Your task to perform on an android device: turn on priority inbox in the gmail app Image 0: 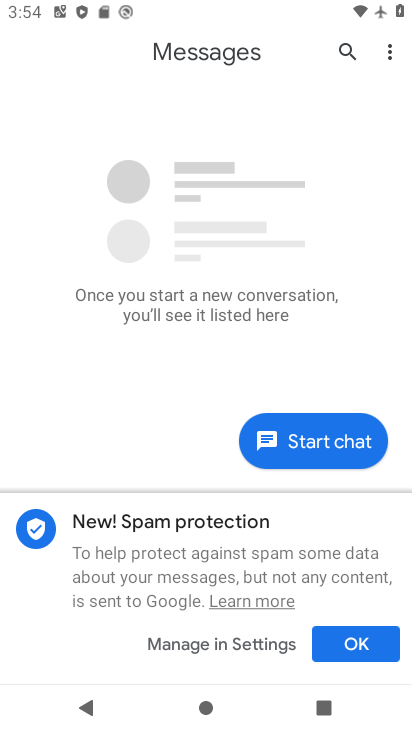
Step 0: press home button
Your task to perform on an android device: turn on priority inbox in the gmail app Image 1: 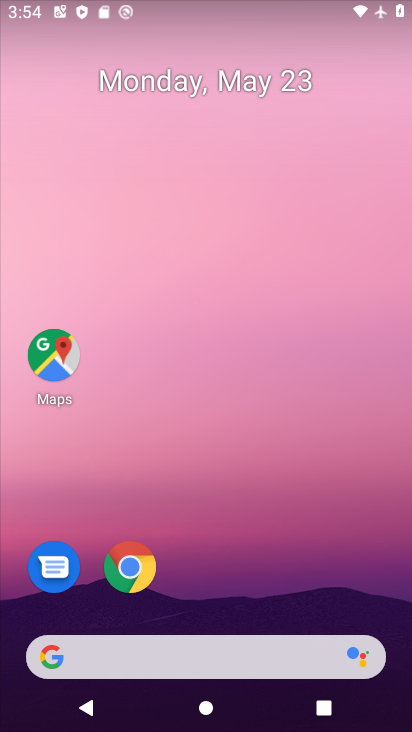
Step 1: drag from (391, 639) to (303, 152)
Your task to perform on an android device: turn on priority inbox in the gmail app Image 2: 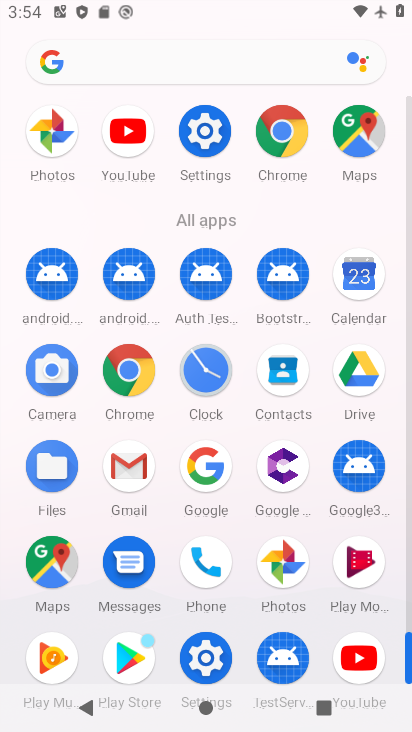
Step 2: click (120, 460)
Your task to perform on an android device: turn on priority inbox in the gmail app Image 3: 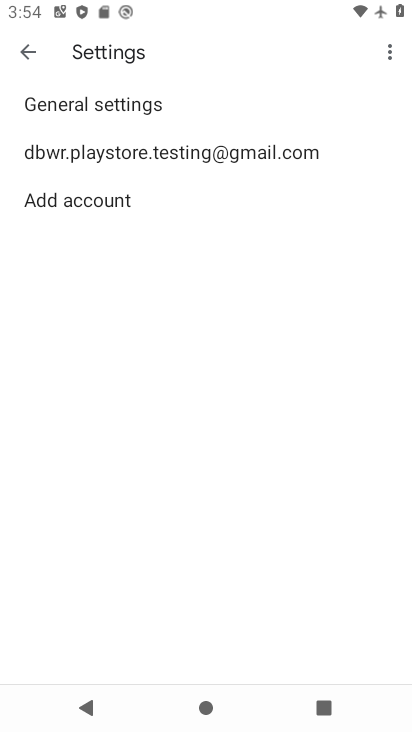
Step 3: click (157, 160)
Your task to perform on an android device: turn on priority inbox in the gmail app Image 4: 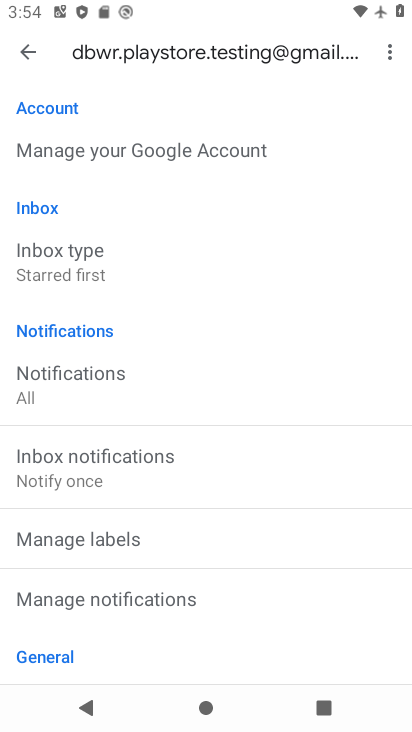
Step 4: click (67, 285)
Your task to perform on an android device: turn on priority inbox in the gmail app Image 5: 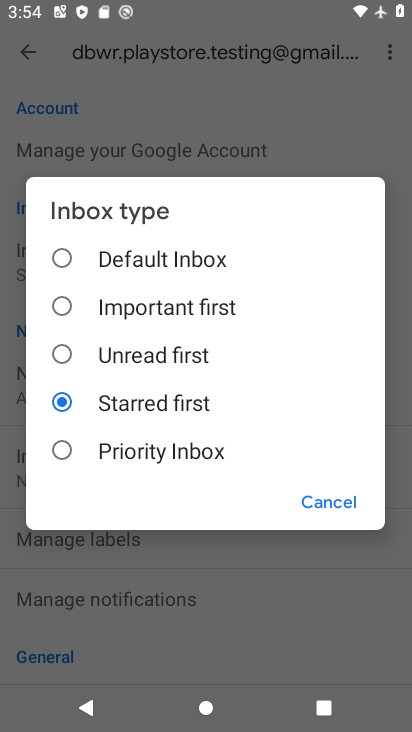
Step 5: click (61, 442)
Your task to perform on an android device: turn on priority inbox in the gmail app Image 6: 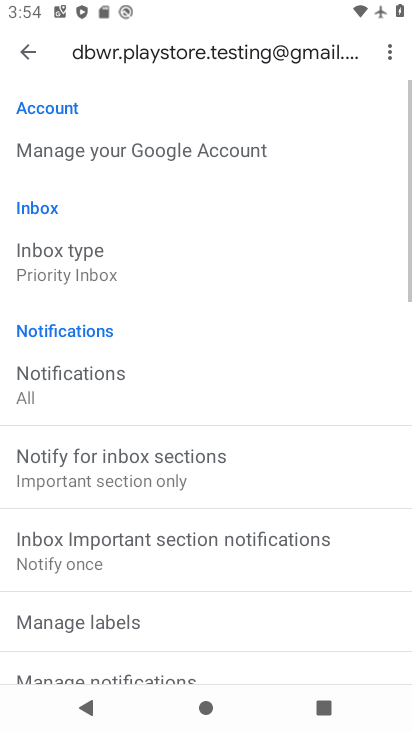
Step 6: task complete